Your task to perform on an android device: Do I have any events today? Image 0: 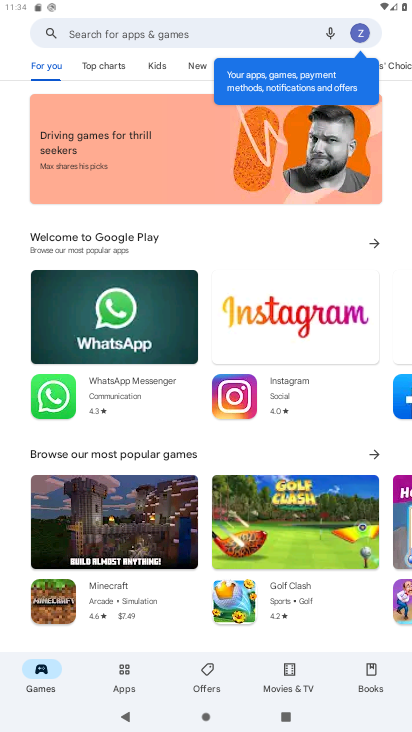
Step 0: press home button
Your task to perform on an android device: Do I have any events today? Image 1: 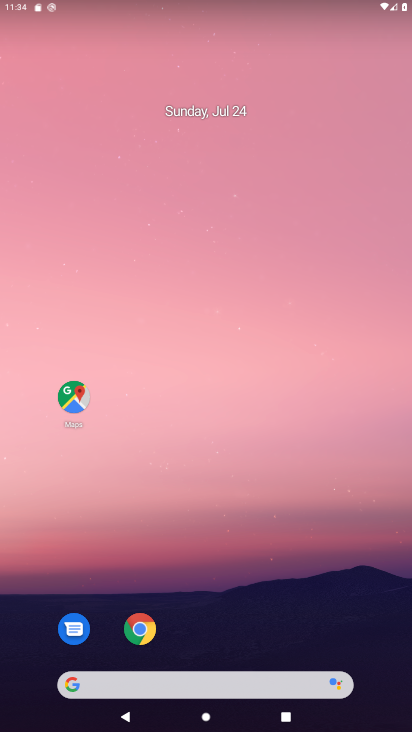
Step 1: drag from (208, 631) to (241, 29)
Your task to perform on an android device: Do I have any events today? Image 2: 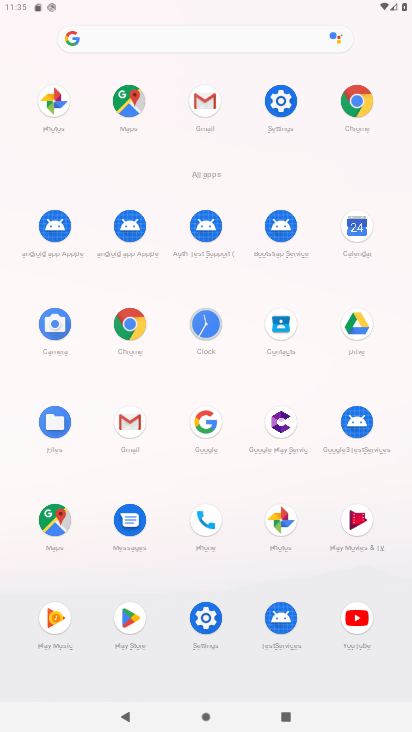
Step 2: click (360, 242)
Your task to perform on an android device: Do I have any events today? Image 3: 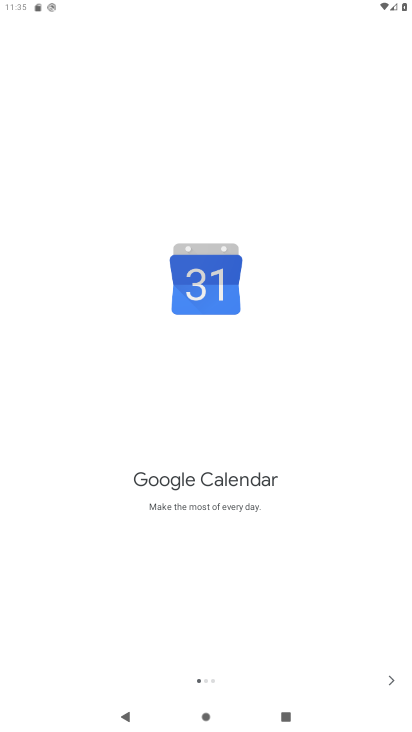
Step 3: click (384, 680)
Your task to perform on an android device: Do I have any events today? Image 4: 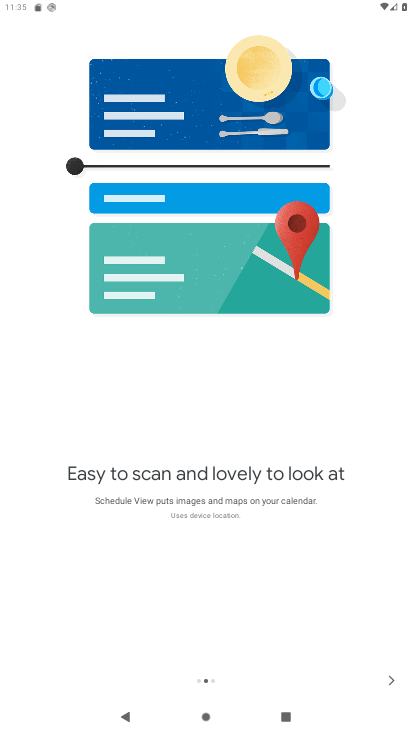
Step 4: click (392, 687)
Your task to perform on an android device: Do I have any events today? Image 5: 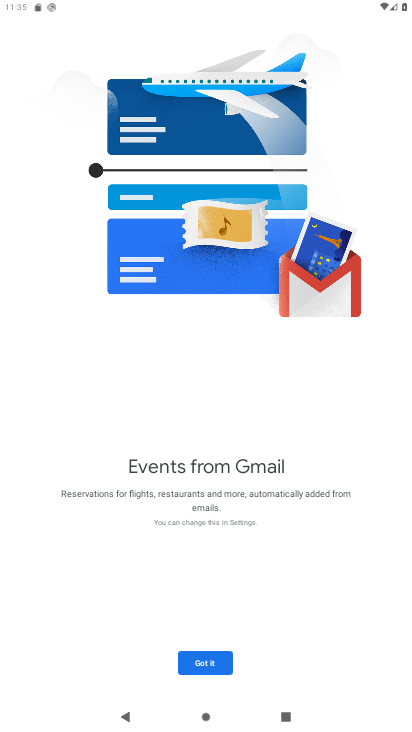
Step 5: click (216, 660)
Your task to perform on an android device: Do I have any events today? Image 6: 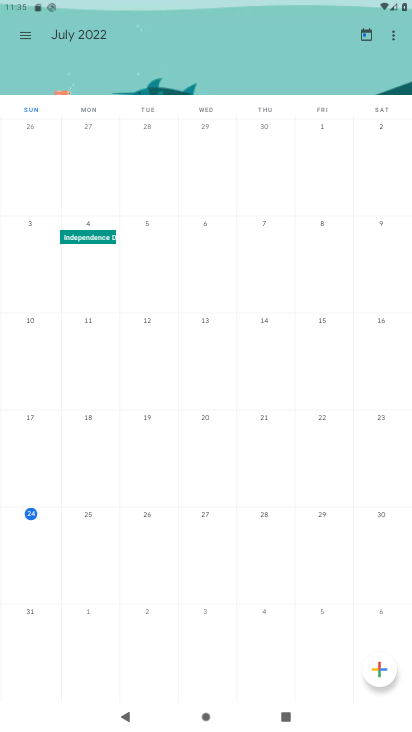
Step 6: click (30, 33)
Your task to perform on an android device: Do I have any events today? Image 7: 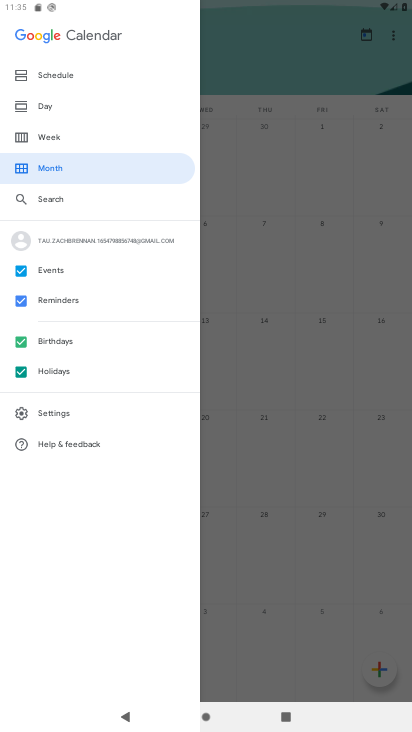
Step 7: click (72, 294)
Your task to perform on an android device: Do I have any events today? Image 8: 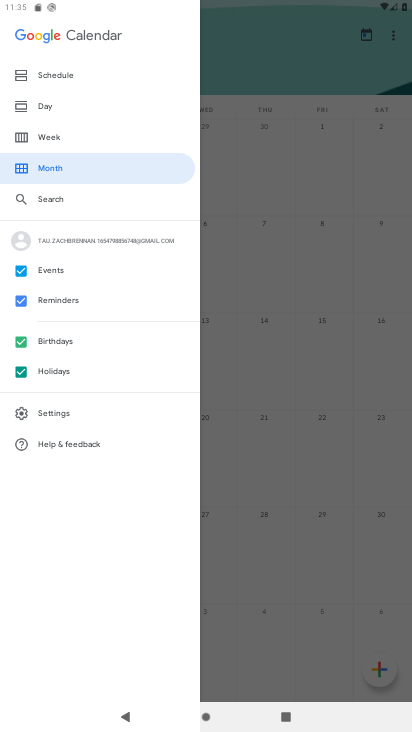
Step 8: click (70, 346)
Your task to perform on an android device: Do I have any events today? Image 9: 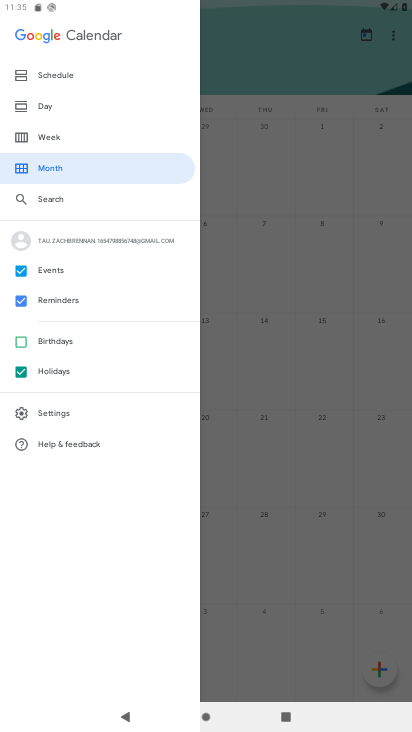
Step 9: click (63, 373)
Your task to perform on an android device: Do I have any events today? Image 10: 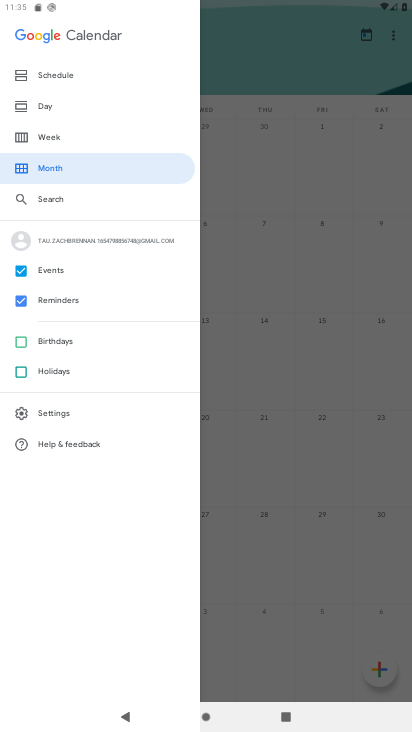
Step 10: click (55, 292)
Your task to perform on an android device: Do I have any events today? Image 11: 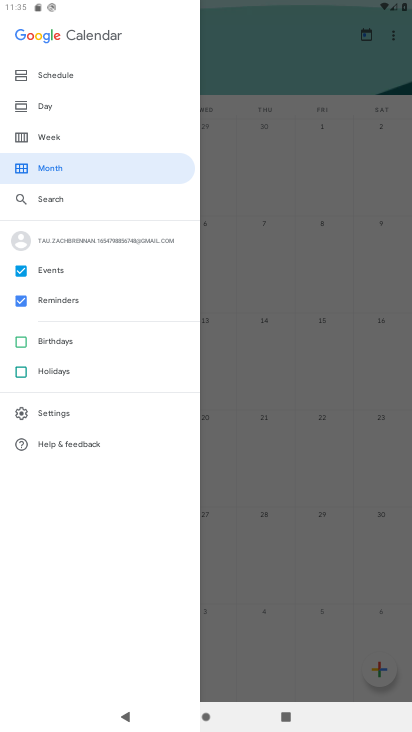
Step 11: click (61, 105)
Your task to perform on an android device: Do I have any events today? Image 12: 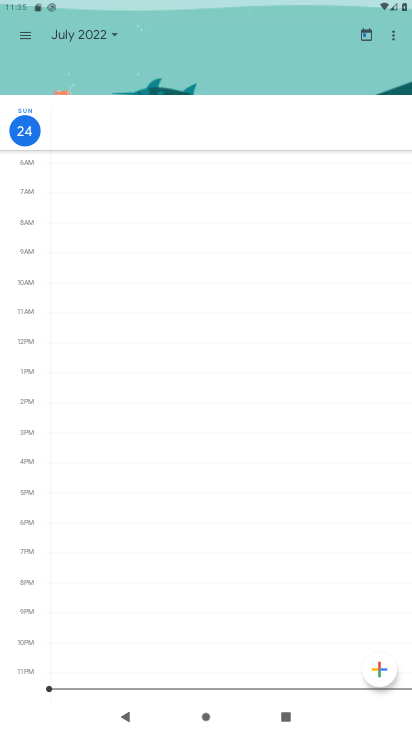
Step 12: task complete